Your task to perform on an android device: Search for vegetarian restaurants on Maps Image 0: 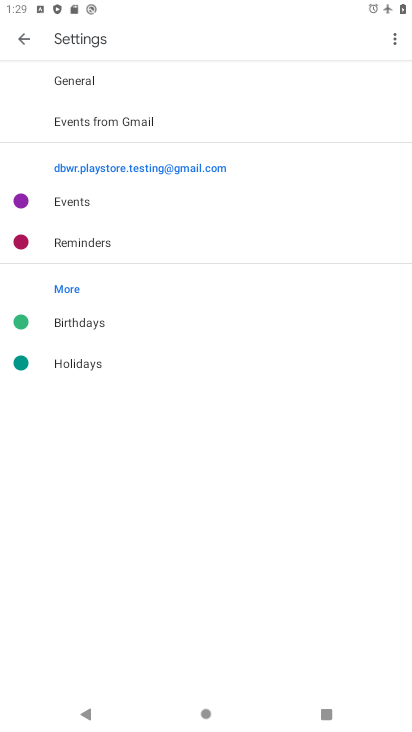
Step 0: press home button
Your task to perform on an android device: Search for vegetarian restaurants on Maps Image 1: 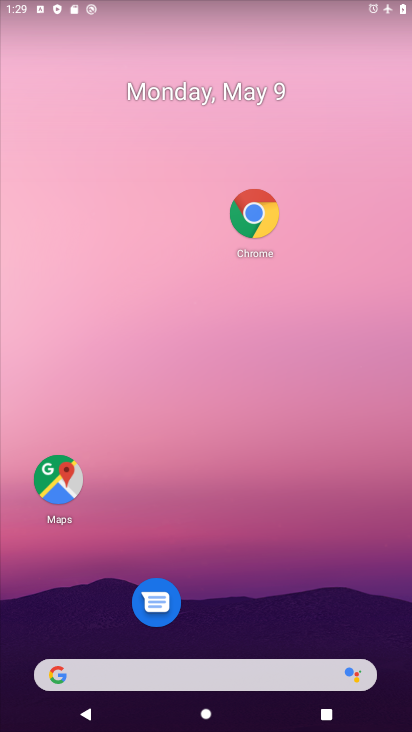
Step 1: click (42, 476)
Your task to perform on an android device: Search for vegetarian restaurants on Maps Image 2: 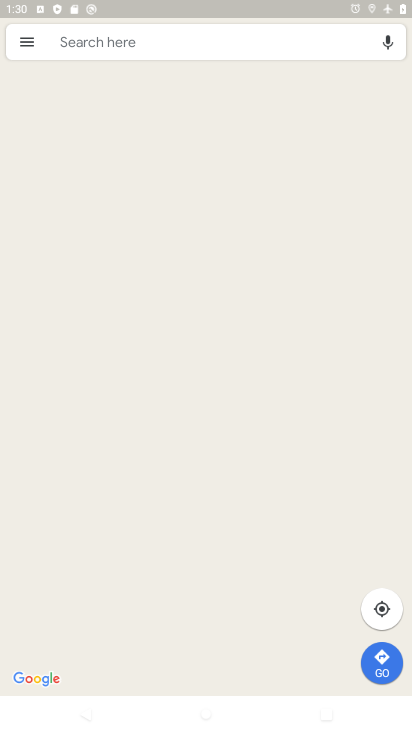
Step 2: task complete